Your task to perform on an android device: open sync settings in chrome Image 0: 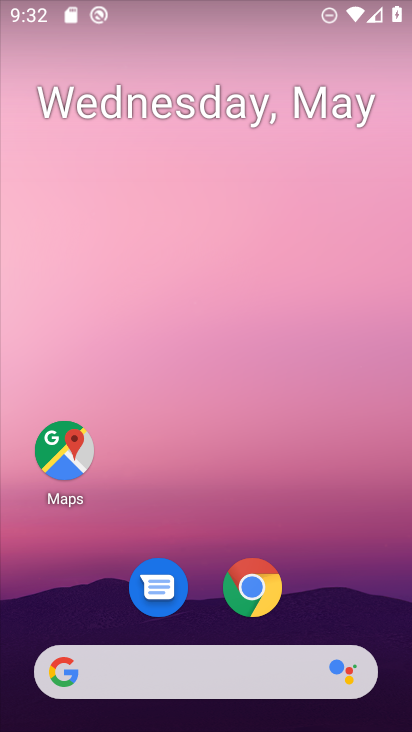
Step 0: click (260, 587)
Your task to perform on an android device: open sync settings in chrome Image 1: 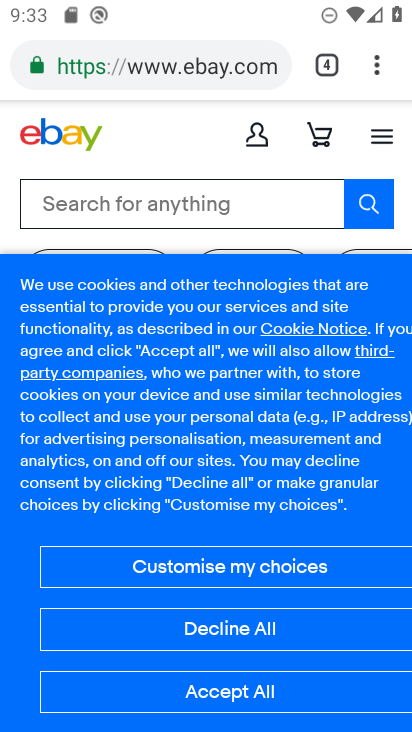
Step 1: click (379, 71)
Your task to perform on an android device: open sync settings in chrome Image 2: 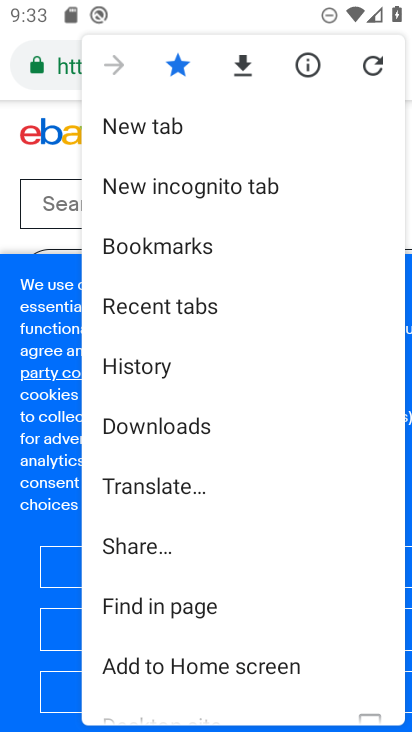
Step 2: drag from (235, 649) to (239, 247)
Your task to perform on an android device: open sync settings in chrome Image 3: 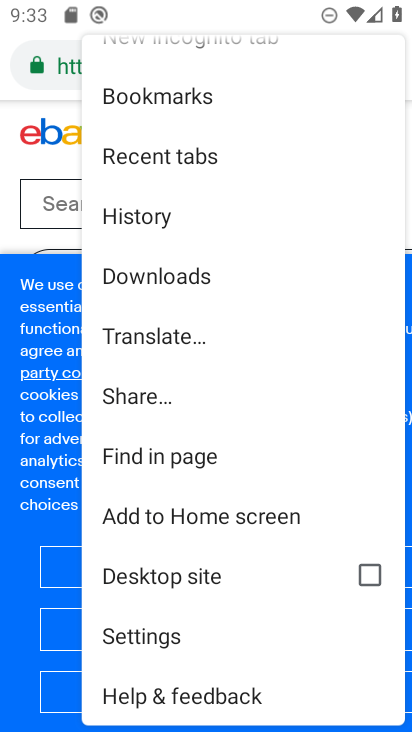
Step 3: click (162, 637)
Your task to perform on an android device: open sync settings in chrome Image 4: 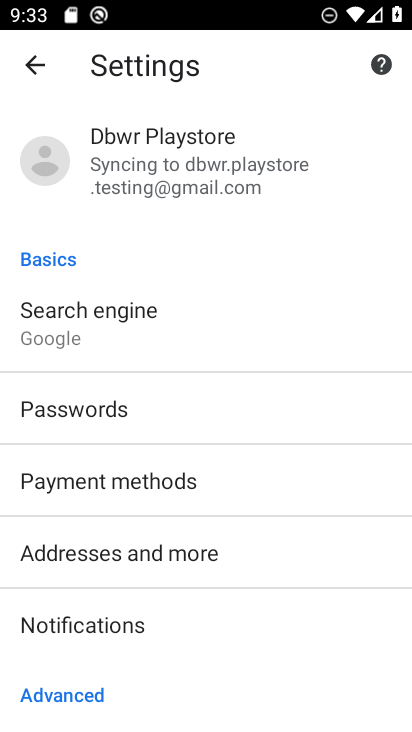
Step 4: drag from (162, 666) to (167, 269)
Your task to perform on an android device: open sync settings in chrome Image 5: 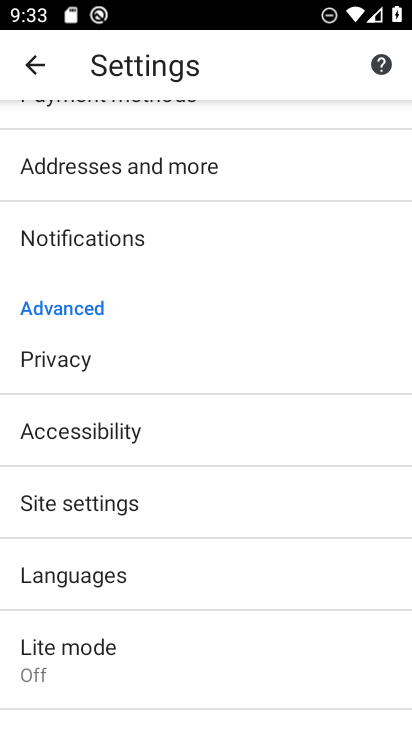
Step 5: click (71, 499)
Your task to perform on an android device: open sync settings in chrome Image 6: 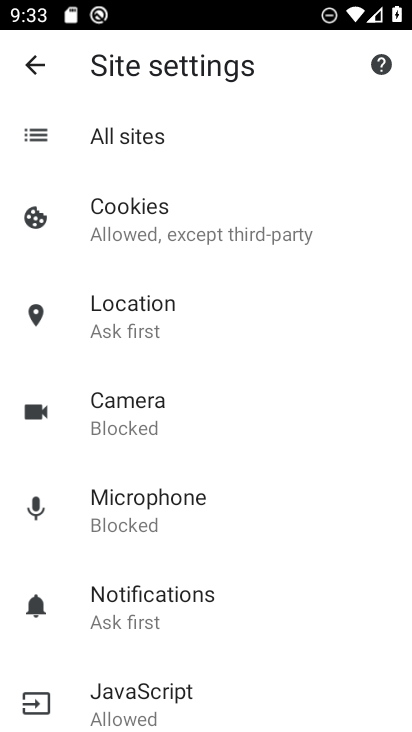
Step 6: drag from (210, 645) to (211, 320)
Your task to perform on an android device: open sync settings in chrome Image 7: 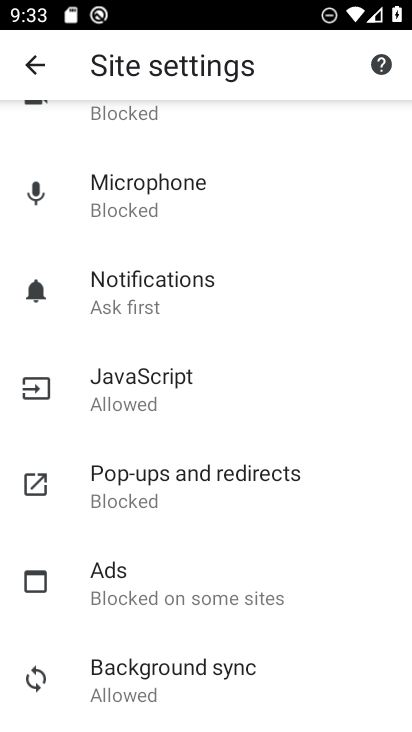
Step 7: click (146, 669)
Your task to perform on an android device: open sync settings in chrome Image 8: 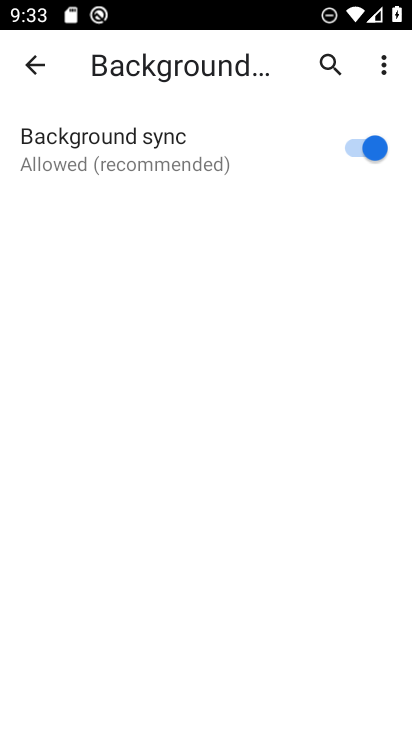
Step 8: task complete